Your task to perform on an android device: check android version Image 0: 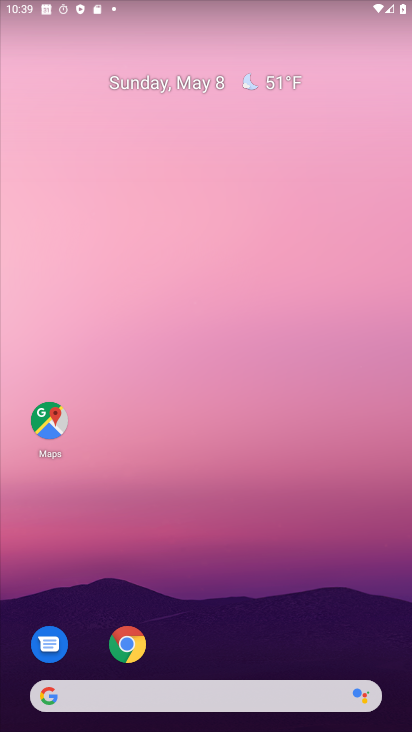
Step 0: drag from (178, 657) to (234, 146)
Your task to perform on an android device: check android version Image 1: 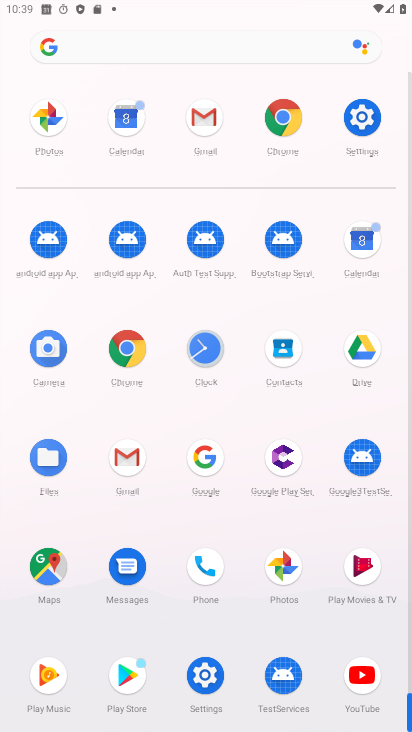
Step 1: click (359, 116)
Your task to perform on an android device: check android version Image 2: 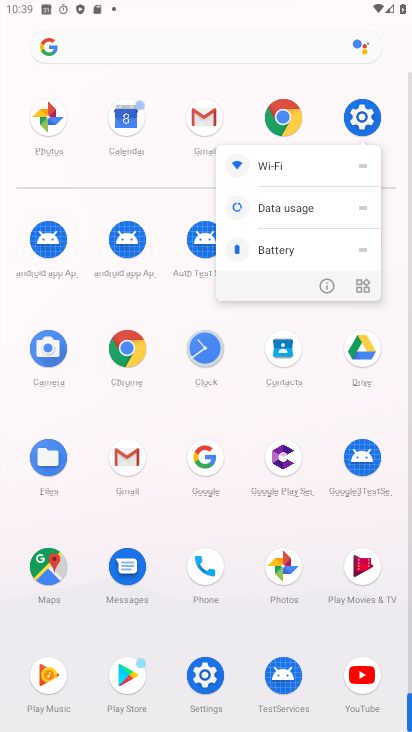
Step 2: click (324, 284)
Your task to perform on an android device: check android version Image 3: 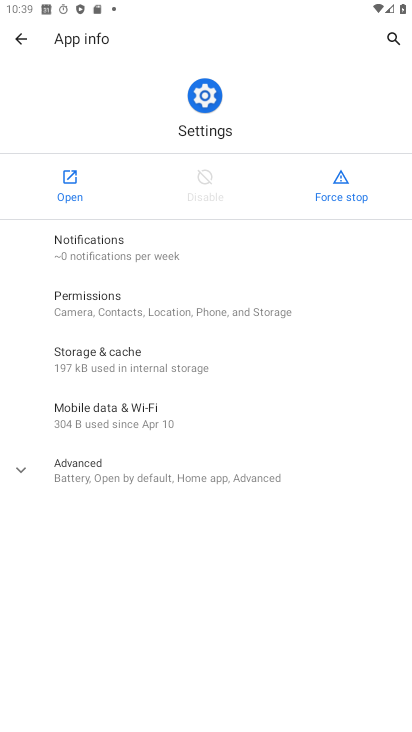
Step 3: click (65, 198)
Your task to perform on an android device: check android version Image 4: 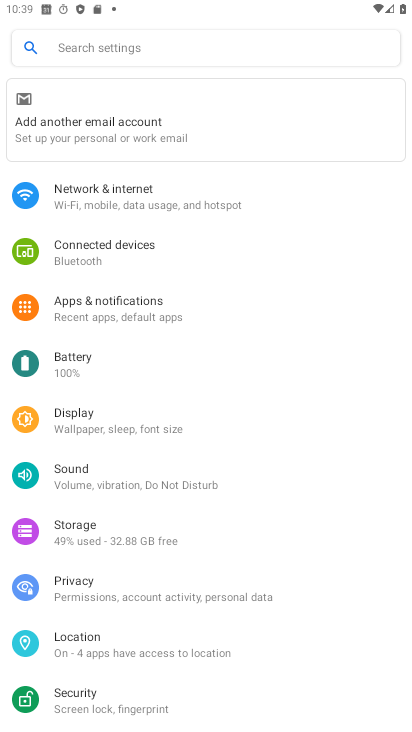
Step 4: drag from (204, 534) to (209, 195)
Your task to perform on an android device: check android version Image 5: 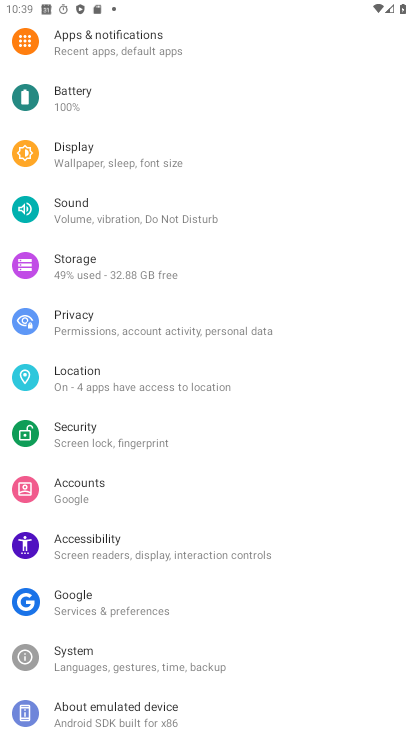
Step 5: drag from (155, 632) to (200, 277)
Your task to perform on an android device: check android version Image 6: 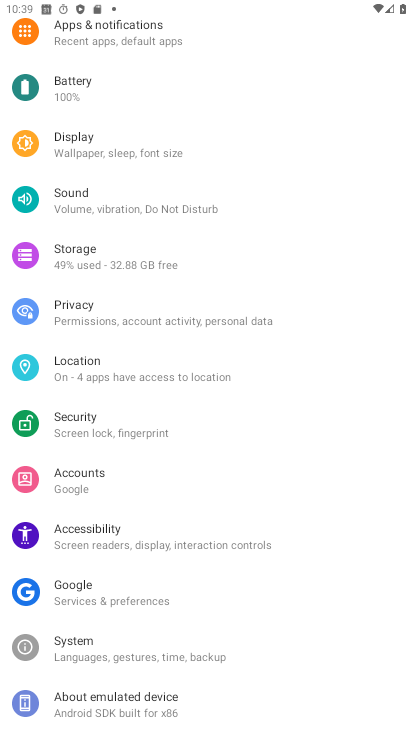
Step 6: click (148, 706)
Your task to perform on an android device: check android version Image 7: 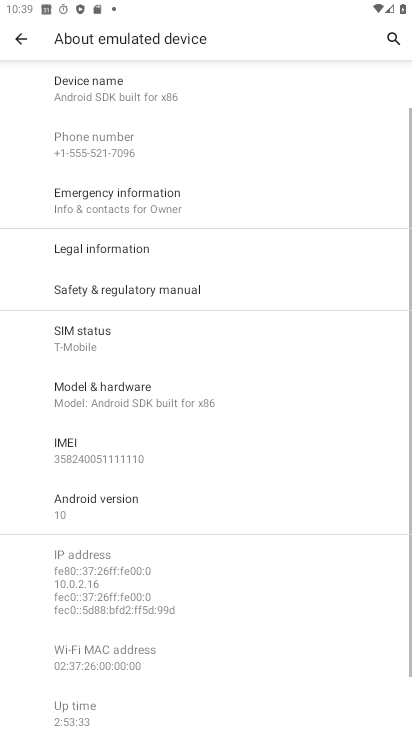
Step 7: drag from (163, 661) to (235, 214)
Your task to perform on an android device: check android version Image 8: 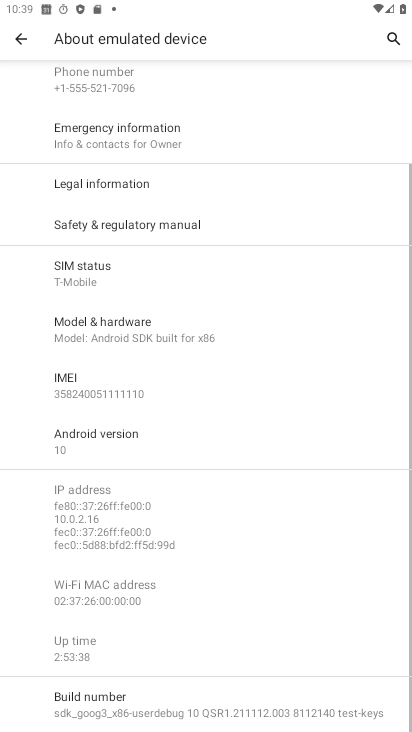
Step 8: click (148, 434)
Your task to perform on an android device: check android version Image 9: 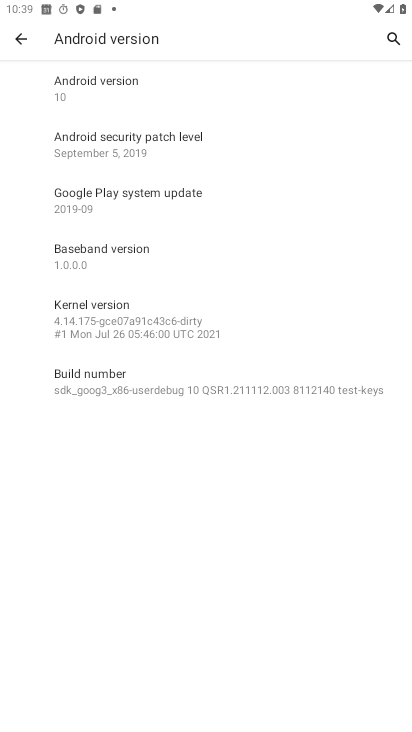
Step 9: click (127, 95)
Your task to perform on an android device: check android version Image 10: 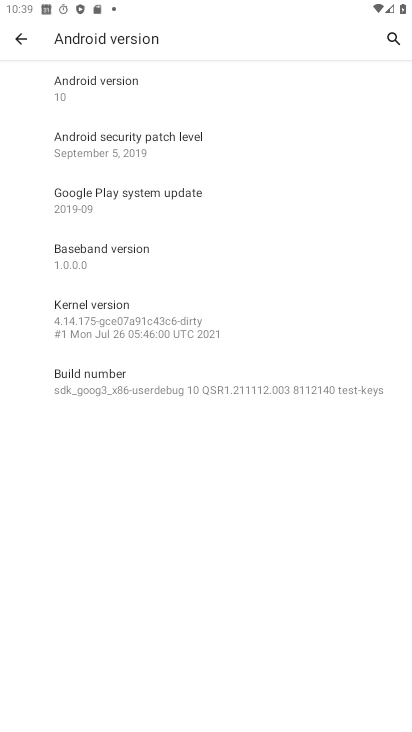
Step 10: task complete